Your task to perform on an android device: Open battery settings Image 0: 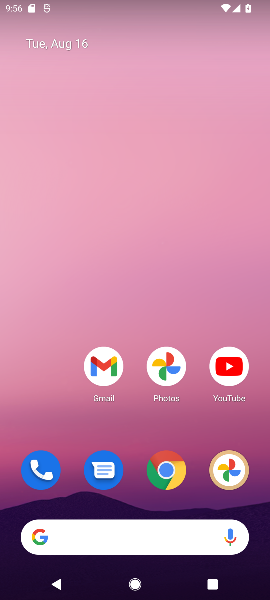
Step 0: drag from (35, 391) to (135, 10)
Your task to perform on an android device: Open battery settings Image 1: 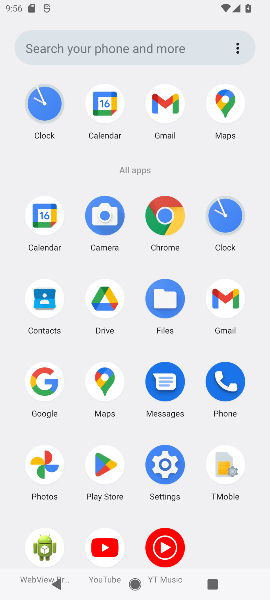
Step 1: click (165, 461)
Your task to perform on an android device: Open battery settings Image 2: 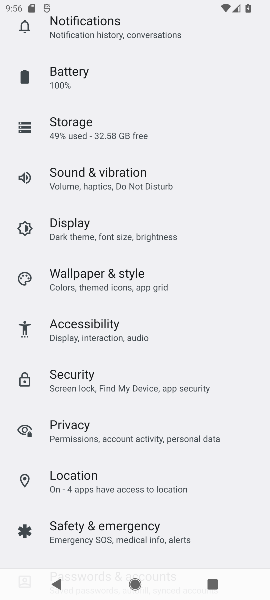
Step 2: click (90, 82)
Your task to perform on an android device: Open battery settings Image 3: 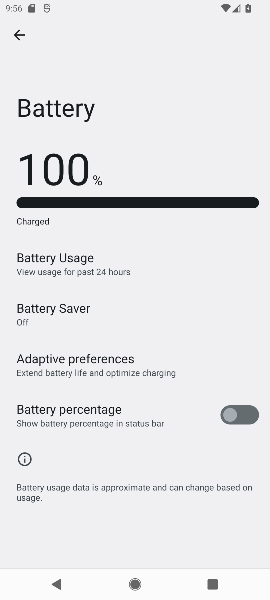
Step 3: task complete